Your task to perform on an android device: see tabs open on other devices in the chrome app Image 0: 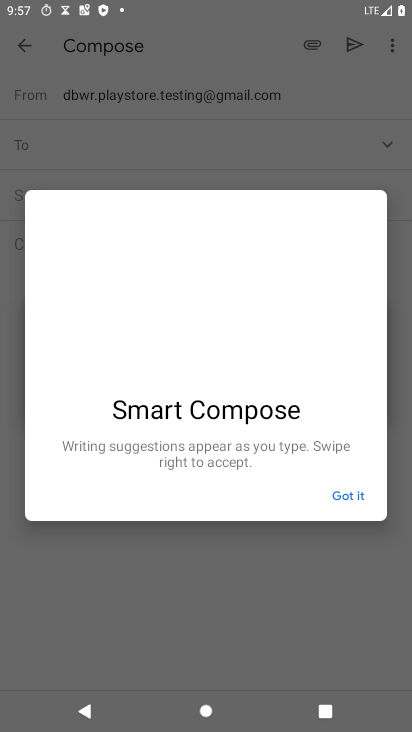
Step 0: press back button
Your task to perform on an android device: see tabs open on other devices in the chrome app Image 1: 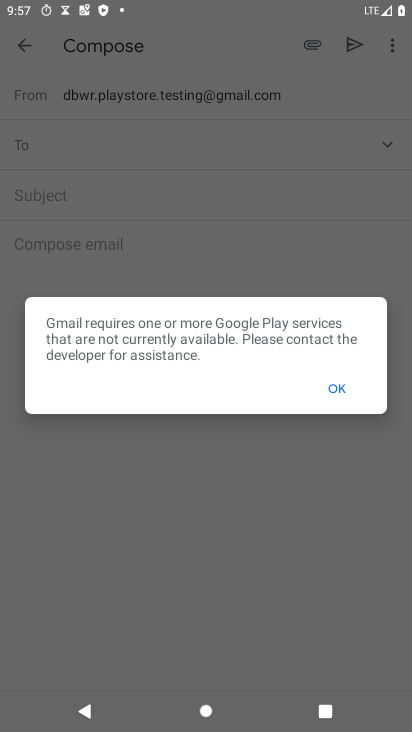
Step 1: press back button
Your task to perform on an android device: see tabs open on other devices in the chrome app Image 2: 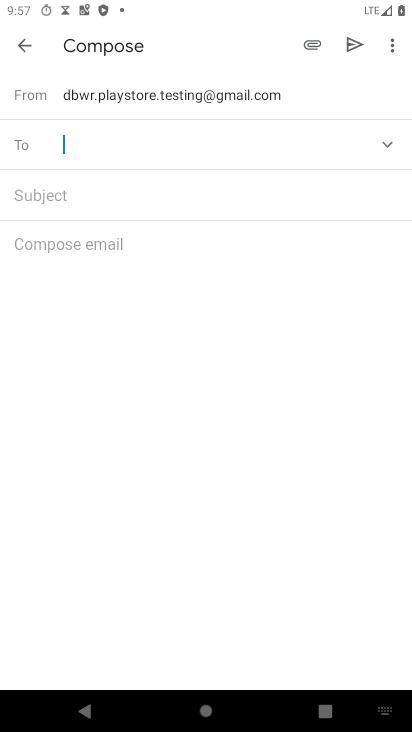
Step 2: press back button
Your task to perform on an android device: see tabs open on other devices in the chrome app Image 3: 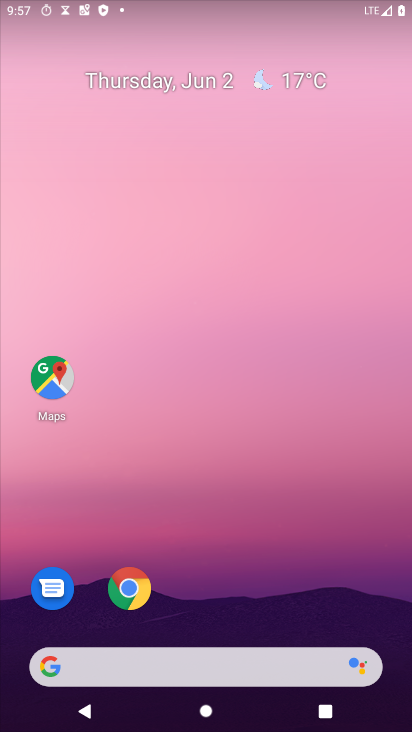
Step 3: click (272, 72)
Your task to perform on an android device: see tabs open on other devices in the chrome app Image 4: 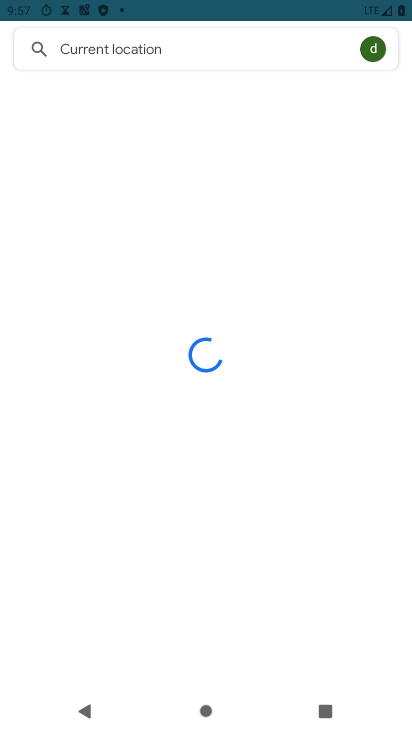
Step 4: press back button
Your task to perform on an android device: see tabs open on other devices in the chrome app Image 5: 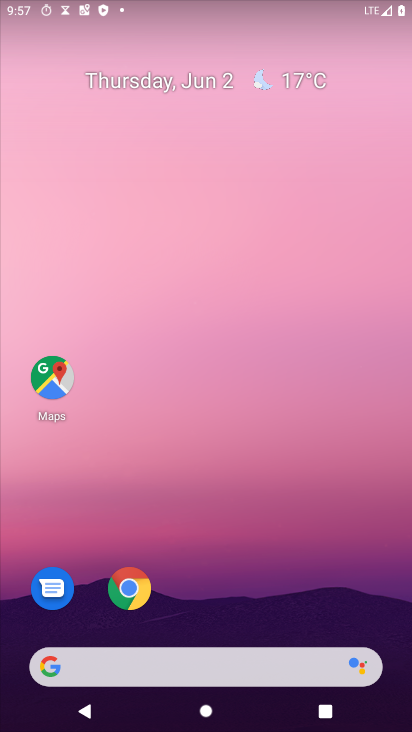
Step 5: click (133, 576)
Your task to perform on an android device: see tabs open on other devices in the chrome app Image 6: 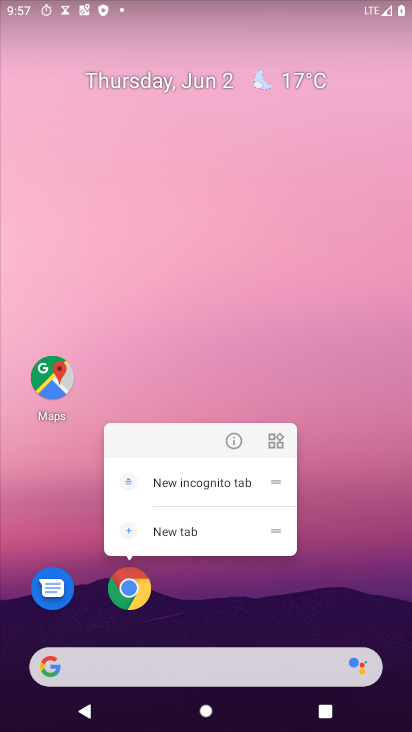
Step 6: click (117, 595)
Your task to perform on an android device: see tabs open on other devices in the chrome app Image 7: 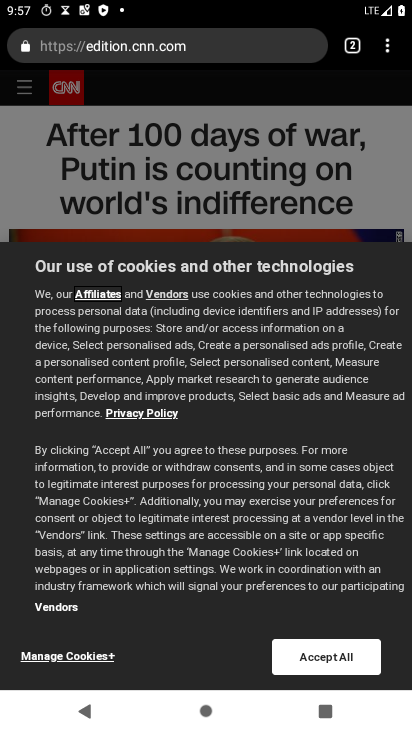
Step 7: task complete